Your task to perform on an android device: Open Chrome and go to the settings page Image 0: 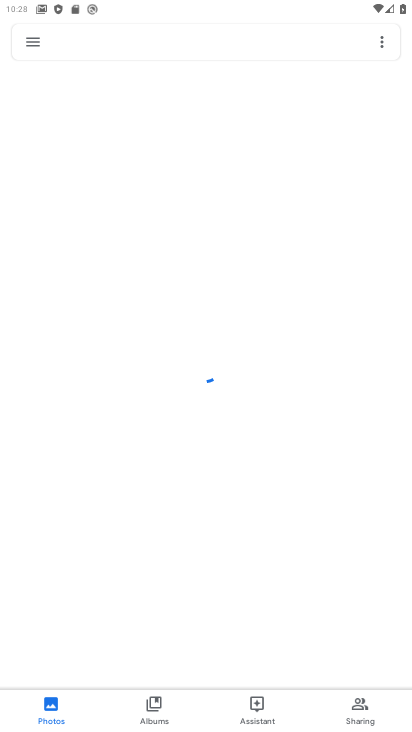
Step 0: press home button
Your task to perform on an android device: Open Chrome and go to the settings page Image 1: 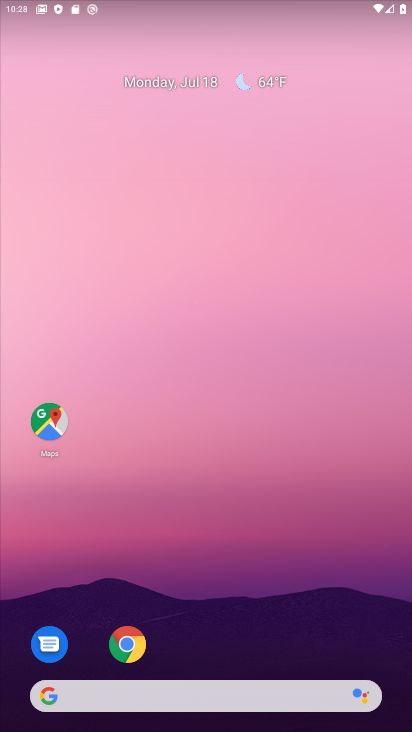
Step 1: click (127, 640)
Your task to perform on an android device: Open Chrome and go to the settings page Image 2: 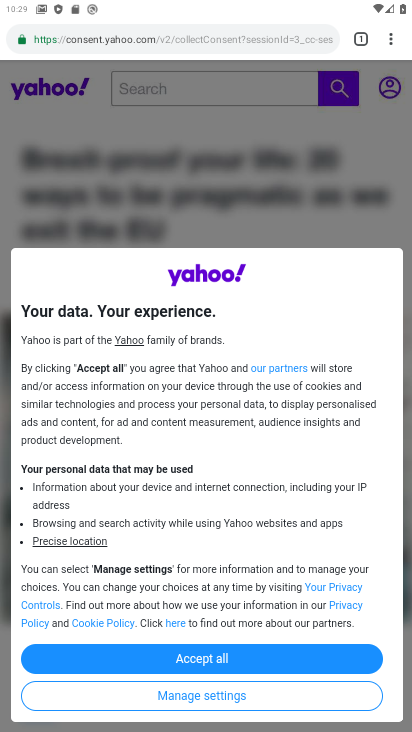
Step 2: click (392, 41)
Your task to perform on an android device: Open Chrome and go to the settings page Image 3: 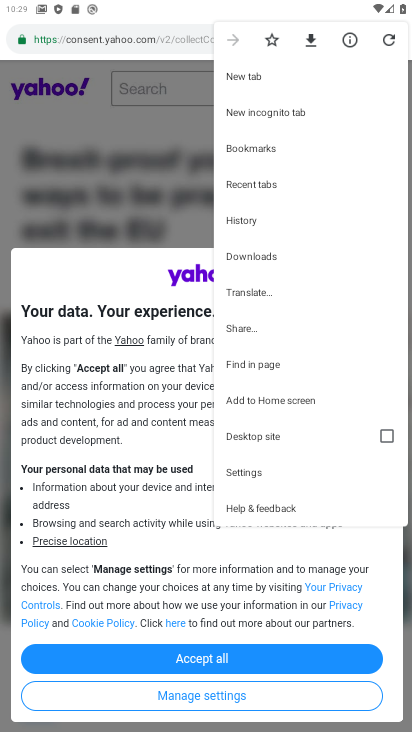
Step 3: click (263, 476)
Your task to perform on an android device: Open Chrome and go to the settings page Image 4: 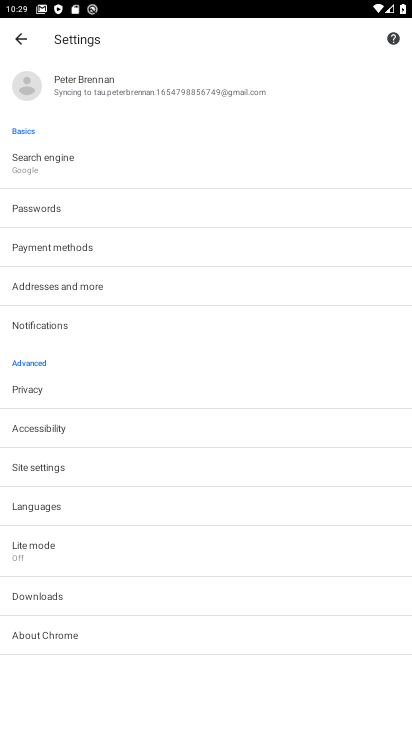
Step 4: task complete